Your task to perform on an android device: Open accessibility settings Image 0: 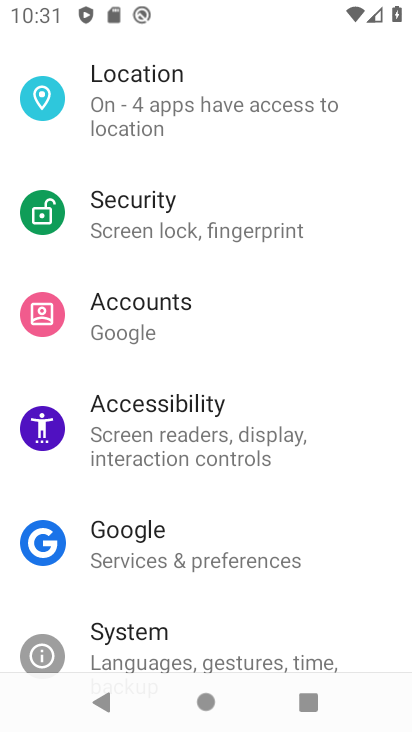
Step 0: click (165, 413)
Your task to perform on an android device: Open accessibility settings Image 1: 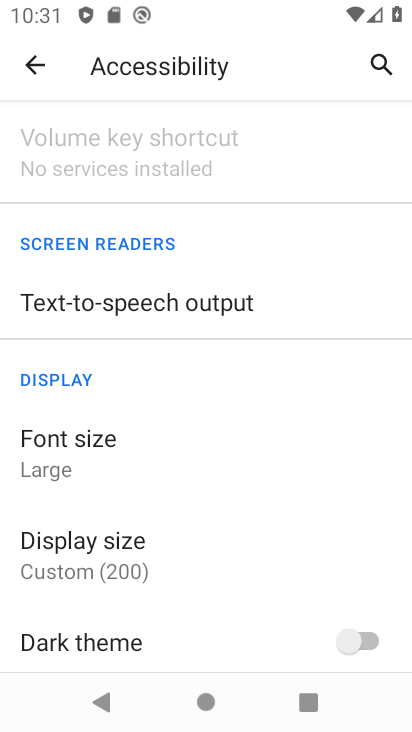
Step 1: task complete